Your task to perform on an android device: Go to Reddit.com Image 0: 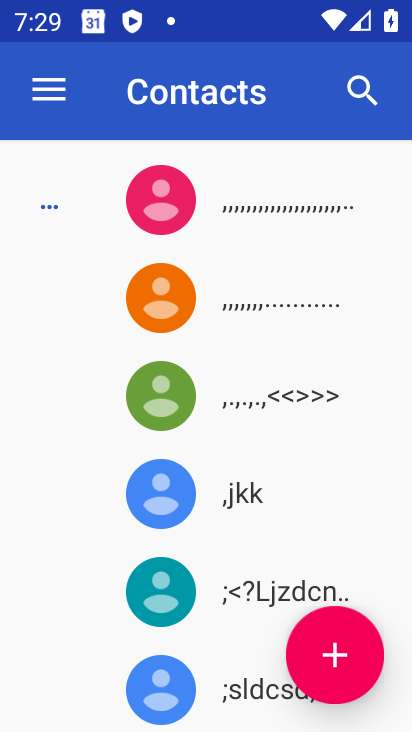
Step 0: press home button
Your task to perform on an android device: Go to Reddit.com Image 1: 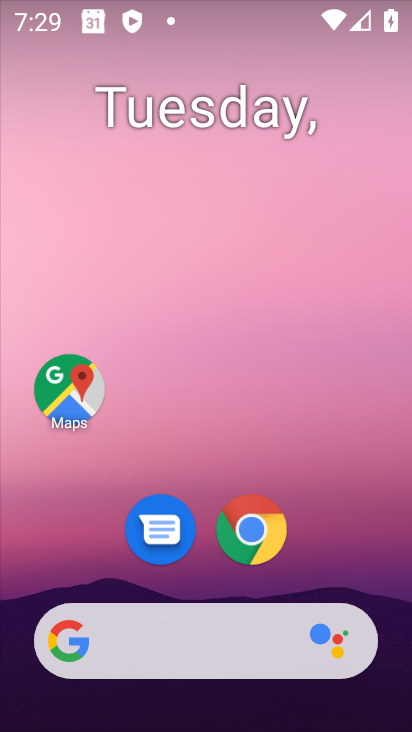
Step 1: drag from (153, 550) to (296, 22)
Your task to perform on an android device: Go to Reddit.com Image 2: 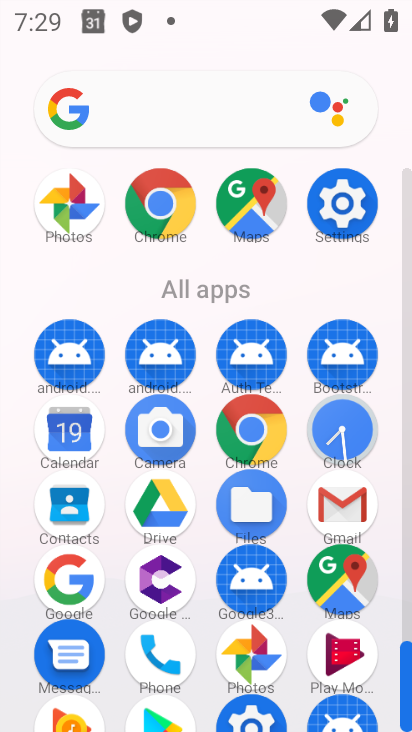
Step 2: click (168, 209)
Your task to perform on an android device: Go to Reddit.com Image 3: 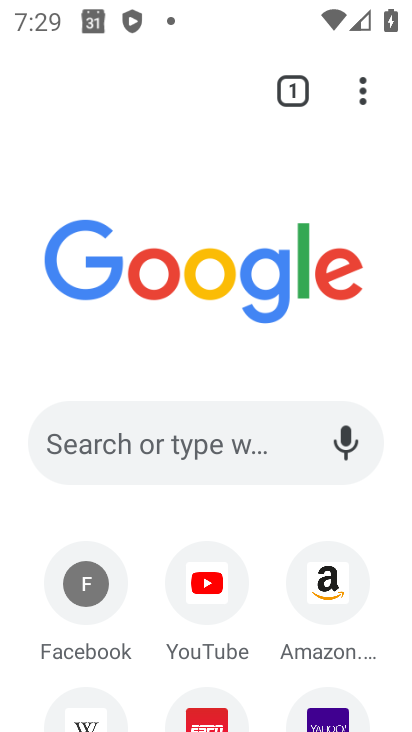
Step 3: drag from (155, 544) to (303, 143)
Your task to perform on an android device: Go to Reddit.com Image 4: 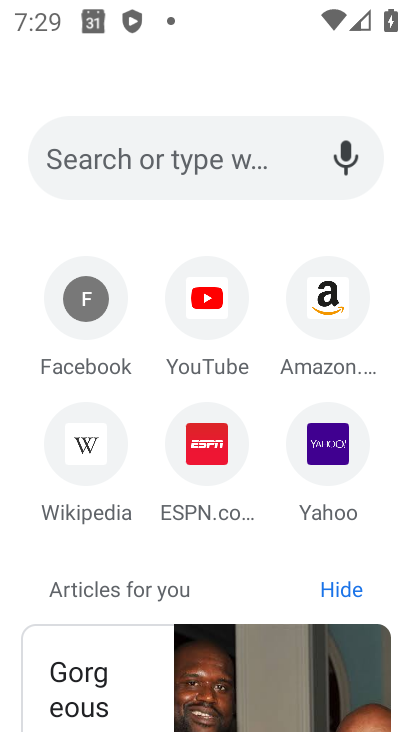
Step 4: click (142, 155)
Your task to perform on an android device: Go to Reddit.com Image 5: 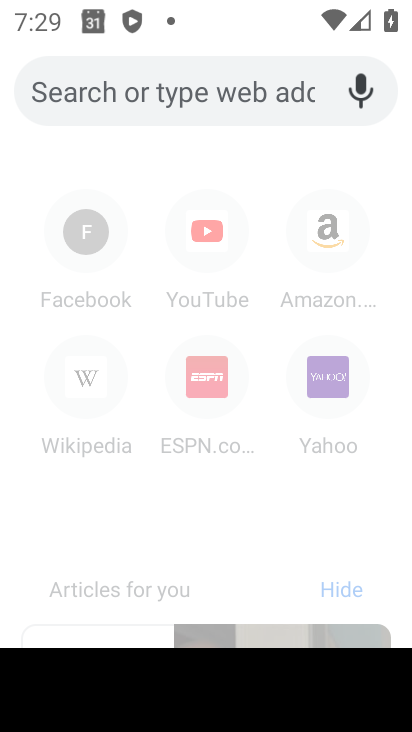
Step 5: type "reddit.com"
Your task to perform on an android device: Go to Reddit.com Image 6: 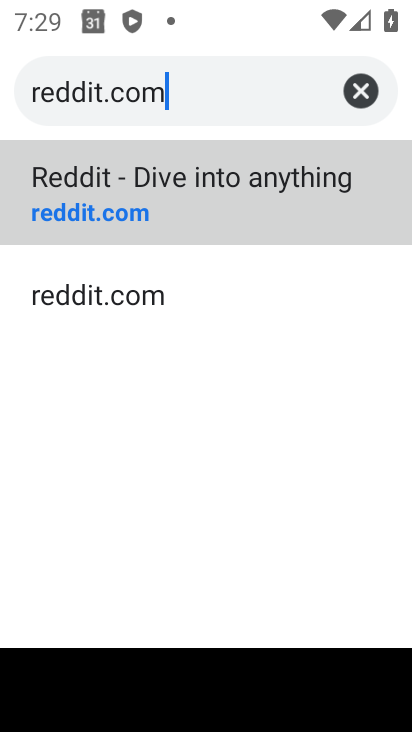
Step 6: click (110, 298)
Your task to perform on an android device: Go to Reddit.com Image 7: 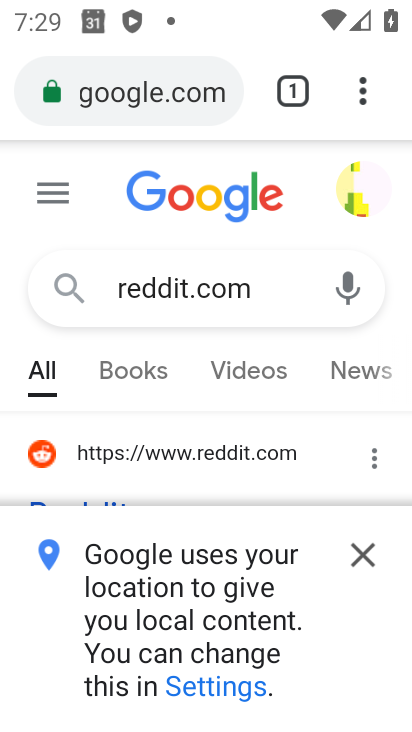
Step 7: click (363, 549)
Your task to perform on an android device: Go to Reddit.com Image 8: 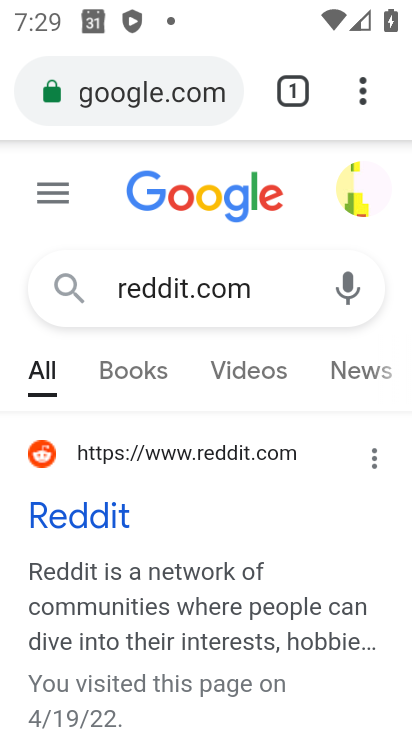
Step 8: click (74, 519)
Your task to perform on an android device: Go to Reddit.com Image 9: 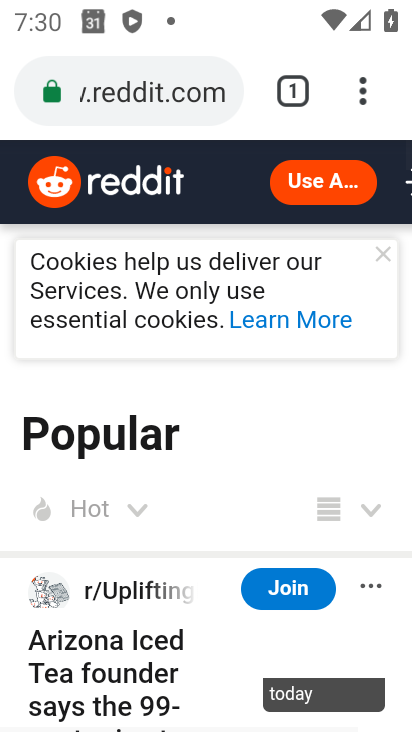
Step 9: task complete